Your task to perform on an android device: open app "Facebook" Image 0: 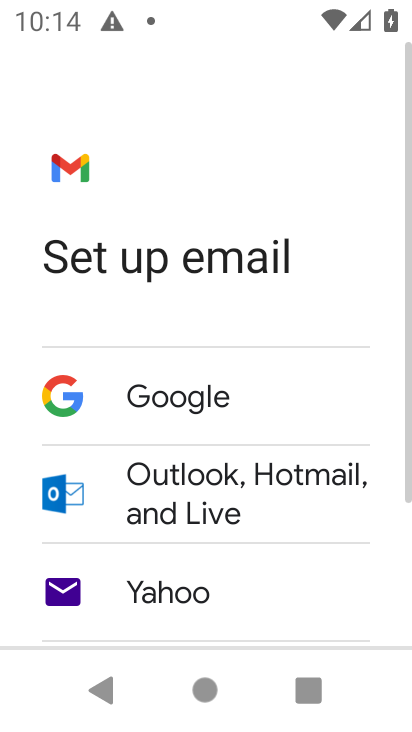
Step 0: press home button
Your task to perform on an android device: open app "Facebook" Image 1: 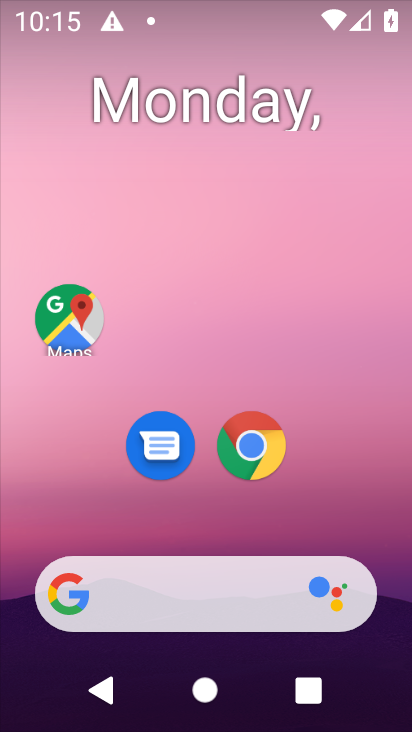
Step 1: drag from (392, 598) to (190, 56)
Your task to perform on an android device: open app "Facebook" Image 2: 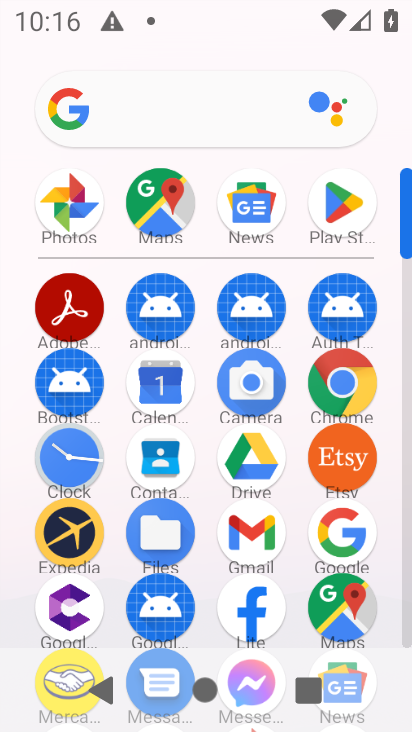
Step 2: click (327, 203)
Your task to perform on an android device: open app "Facebook" Image 3: 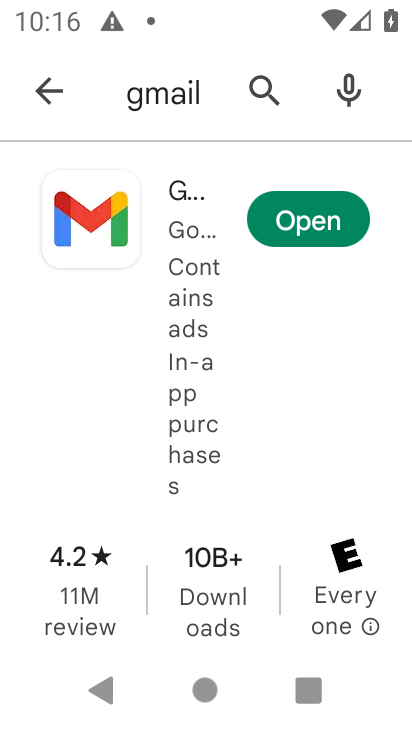
Step 3: press back button
Your task to perform on an android device: open app "Facebook" Image 4: 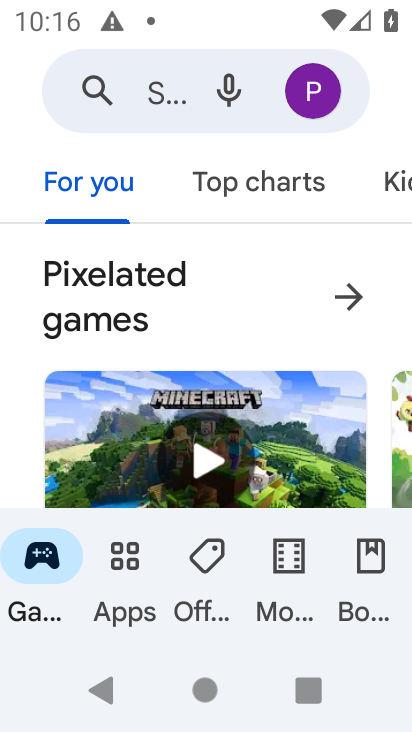
Step 4: click (110, 96)
Your task to perform on an android device: open app "Facebook" Image 5: 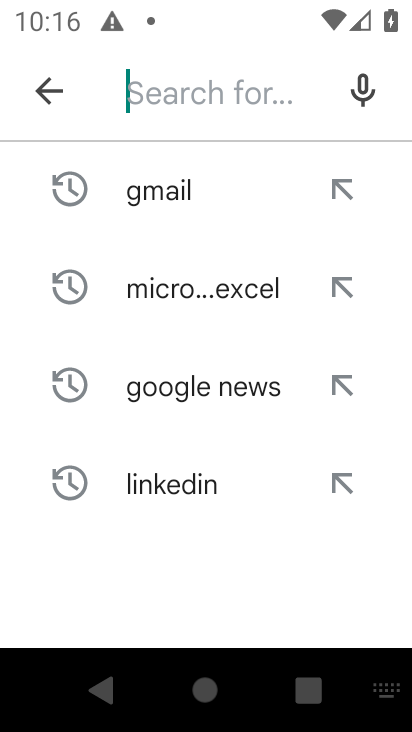
Step 5: type "Facebook"
Your task to perform on an android device: open app "Facebook" Image 6: 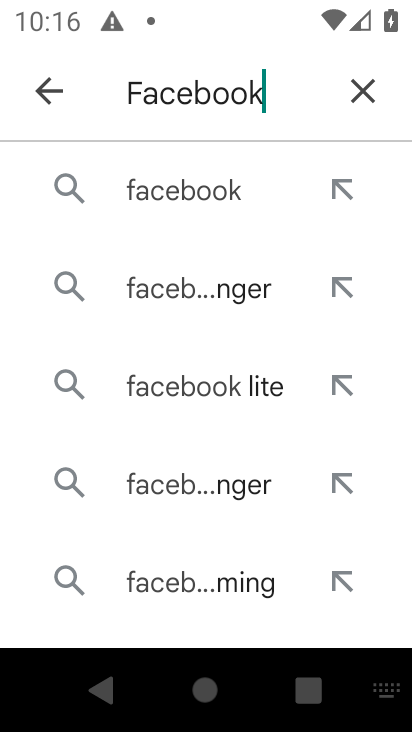
Step 6: click (152, 178)
Your task to perform on an android device: open app "Facebook" Image 7: 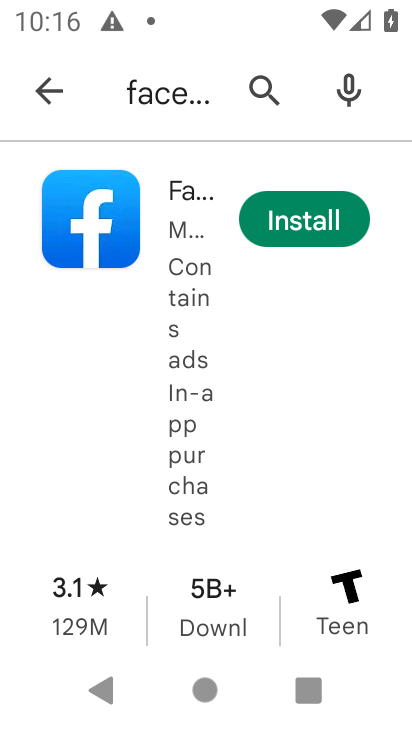
Step 7: task complete